Your task to perform on an android device: turn on sleep mode Image 0: 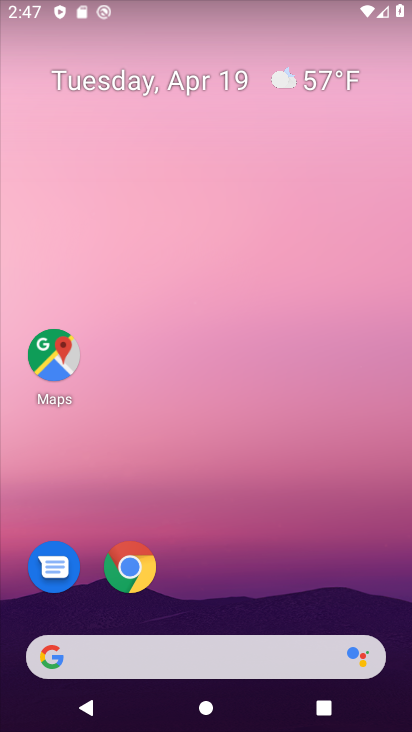
Step 0: drag from (387, 601) to (374, 106)
Your task to perform on an android device: turn on sleep mode Image 1: 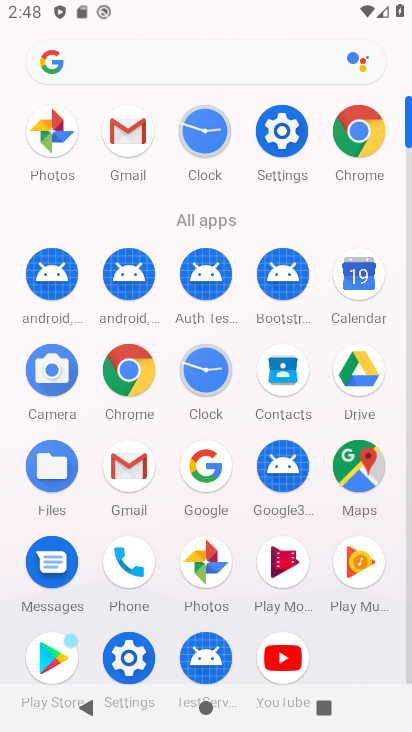
Step 1: click (265, 129)
Your task to perform on an android device: turn on sleep mode Image 2: 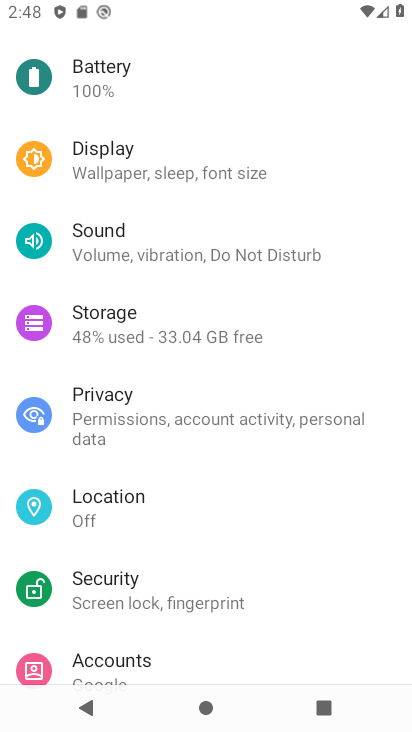
Step 2: drag from (377, 587) to (382, 376)
Your task to perform on an android device: turn on sleep mode Image 3: 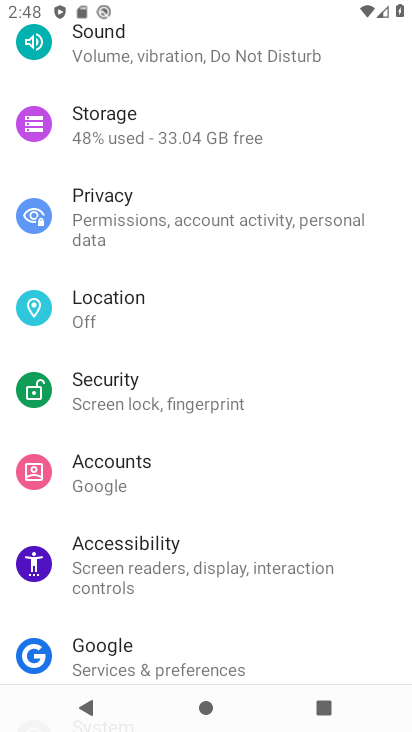
Step 3: drag from (366, 565) to (374, 361)
Your task to perform on an android device: turn on sleep mode Image 4: 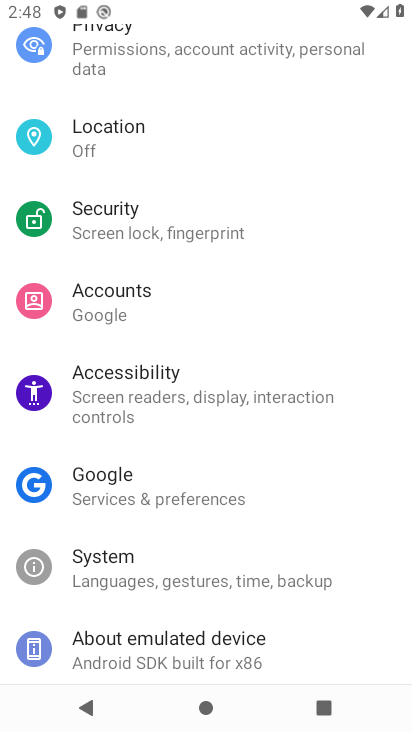
Step 4: drag from (354, 621) to (382, 359)
Your task to perform on an android device: turn on sleep mode Image 5: 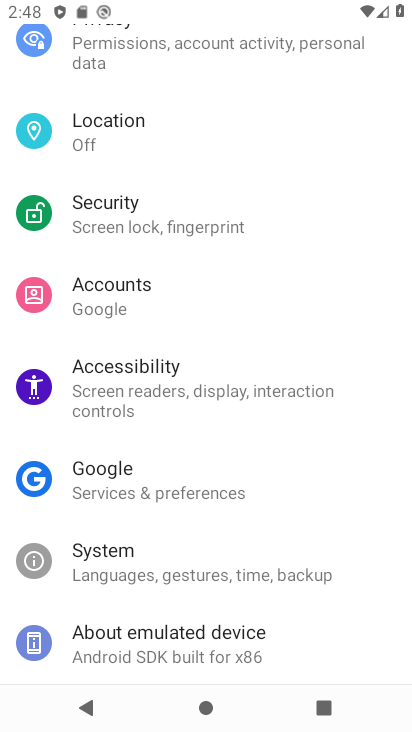
Step 5: drag from (382, 318) to (366, 518)
Your task to perform on an android device: turn on sleep mode Image 6: 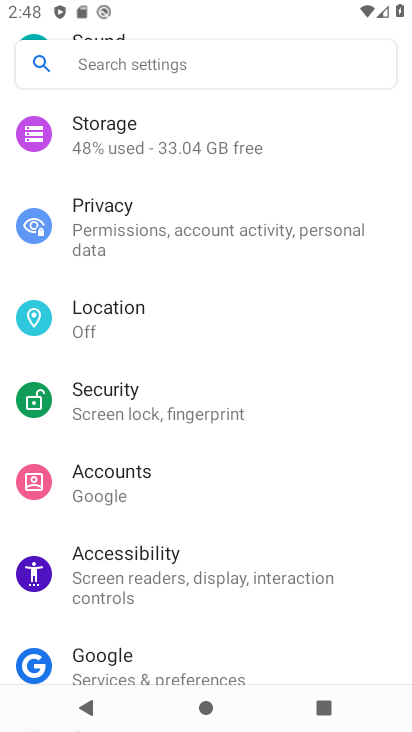
Step 6: drag from (373, 339) to (362, 495)
Your task to perform on an android device: turn on sleep mode Image 7: 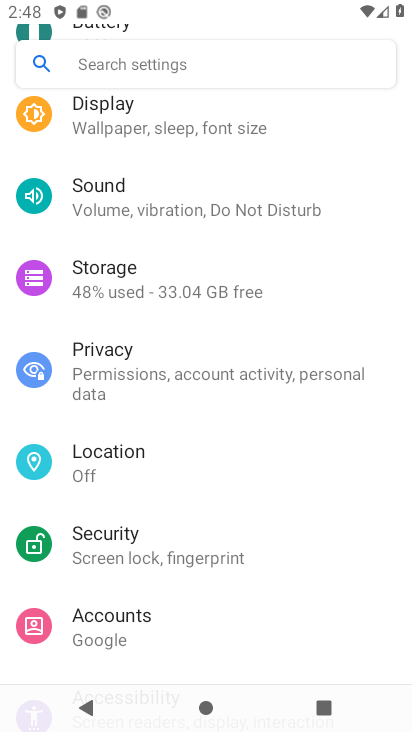
Step 7: drag from (363, 270) to (350, 495)
Your task to perform on an android device: turn on sleep mode Image 8: 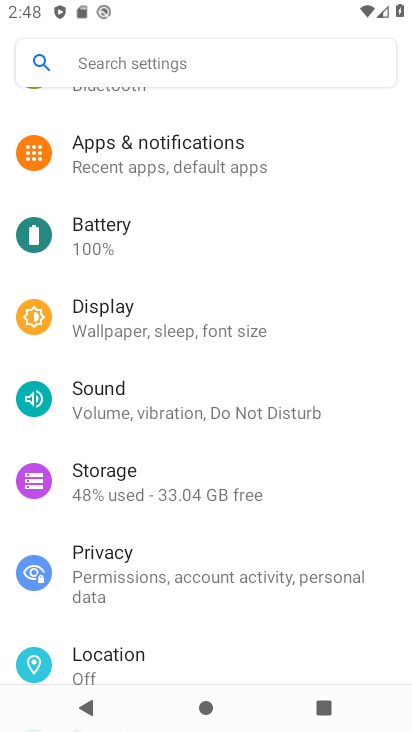
Step 8: click (155, 327)
Your task to perform on an android device: turn on sleep mode Image 9: 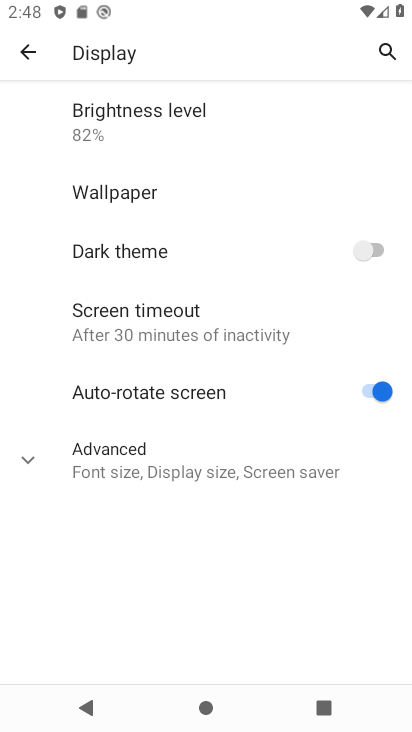
Step 9: click (209, 471)
Your task to perform on an android device: turn on sleep mode Image 10: 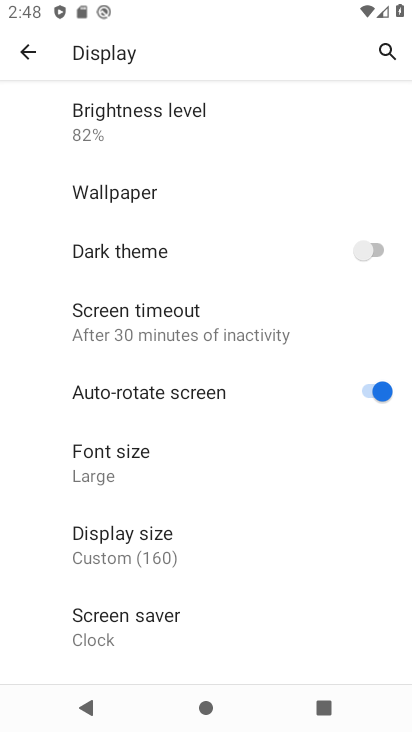
Step 10: task complete